Your task to perform on an android device: read, delete, or share a saved page in the chrome app Image 0: 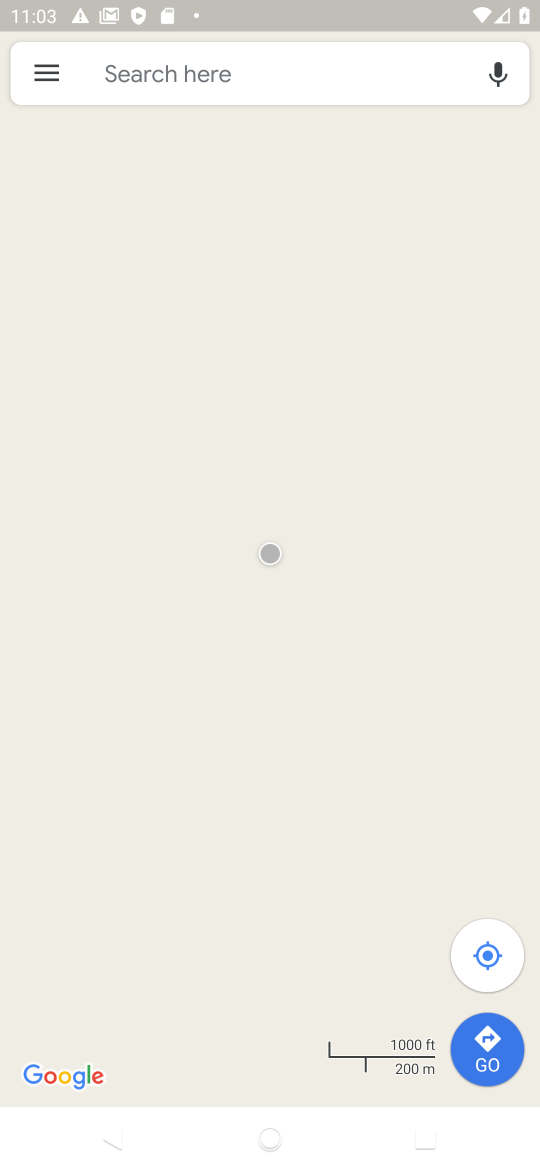
Step 0: press home button
Your task to perform on an android device: read, delete, or share a saved page in the chrome app Image 1: 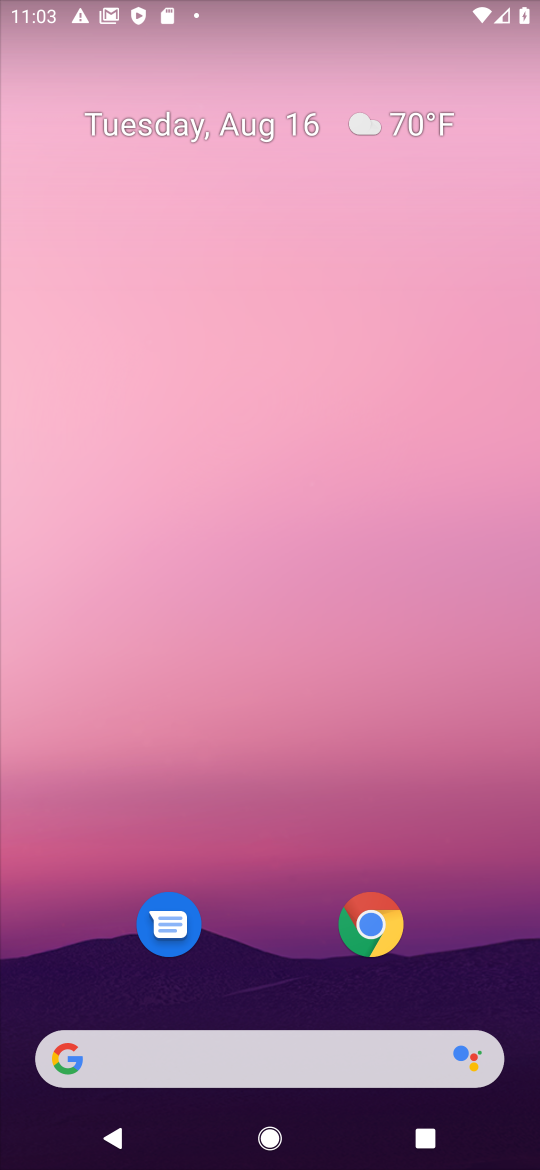
Step 1: click (367, 926)
Your task to perform on an android device: read, delete, or share a saved page in the chrome app Image 2: 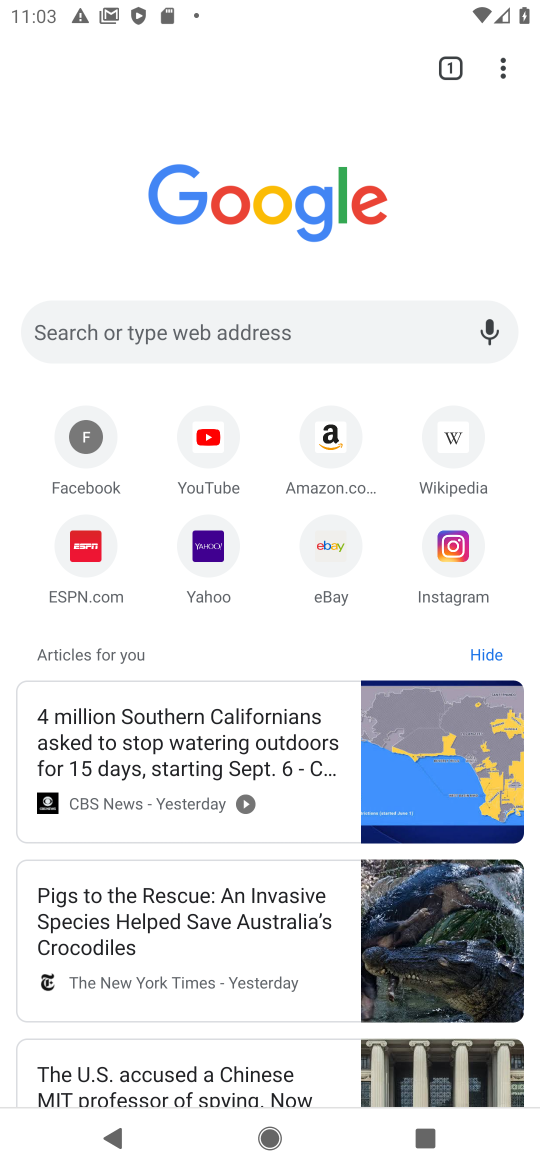
Step 2: click (515, 68)
Your task to perform on an android device: read, delete, or share a saved page in the chrome app Image 3: 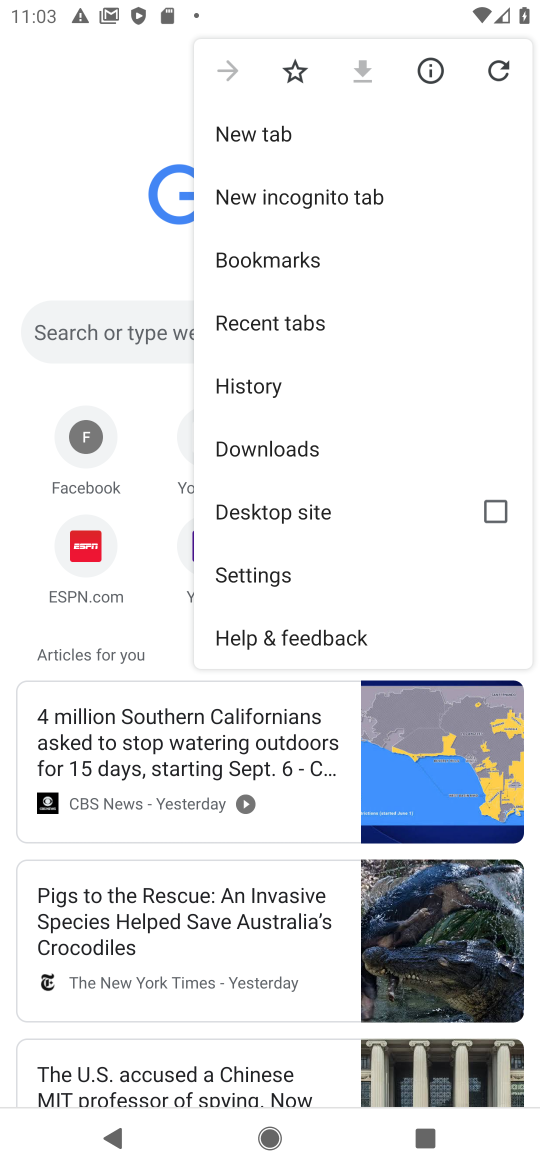
Step 3: click (308, 451)
Your task to perform on an android device: read, delete, or share a saved page in the chrome app Image 4: 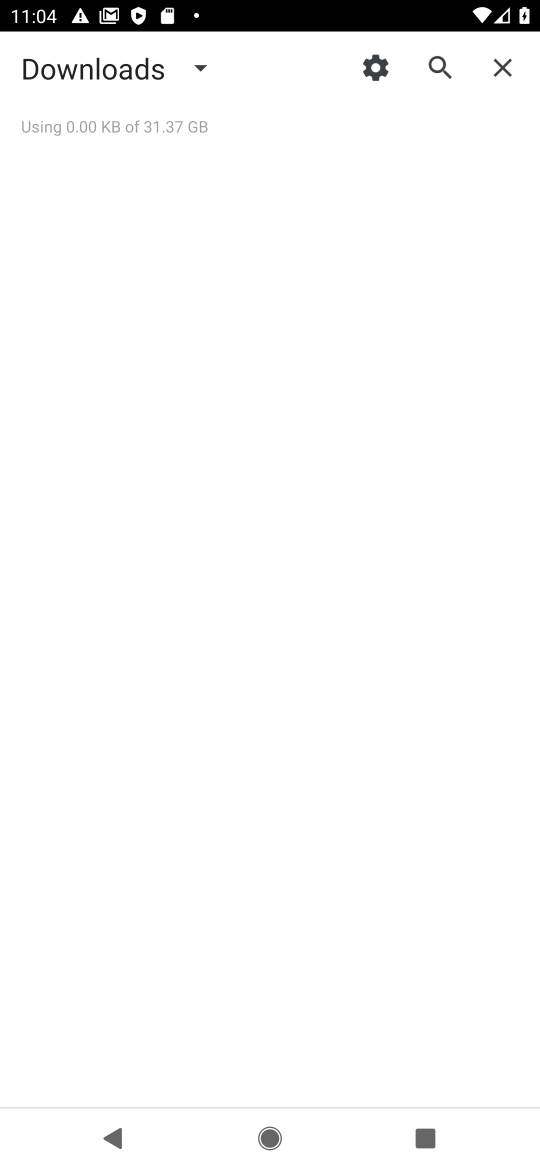
Step 4: task complete